Your task to perform on an android device: clear all cookies in the chrome app Image 0: 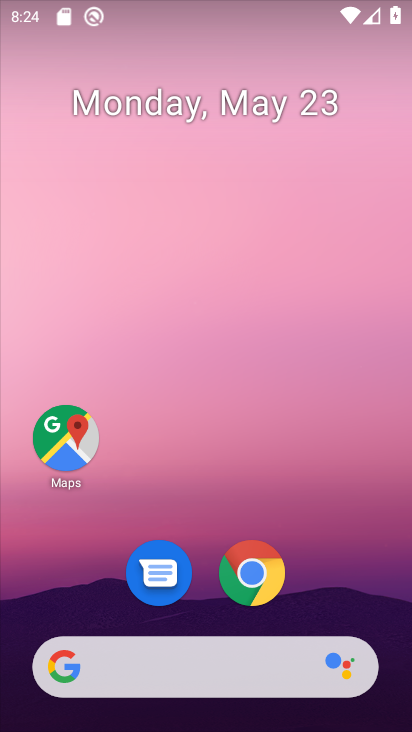
Step 0: click (255, 579)
Your task to perform on an android device: clear all cookies in the chrome app Image 1: 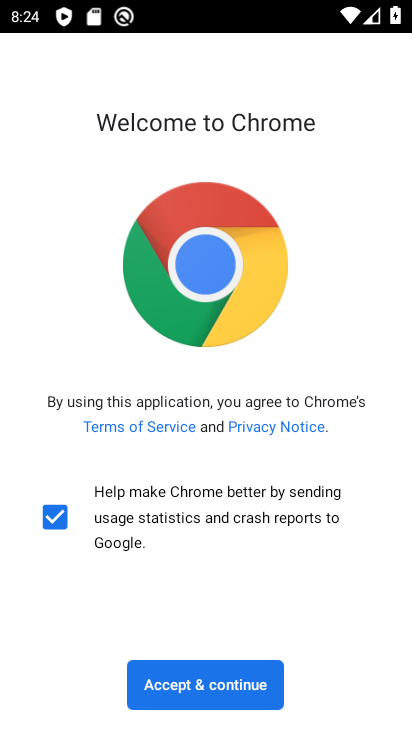
Step 1: click (247, 687)
Your task to perform on an android device: clear all cookies in the chrome app Image 2: 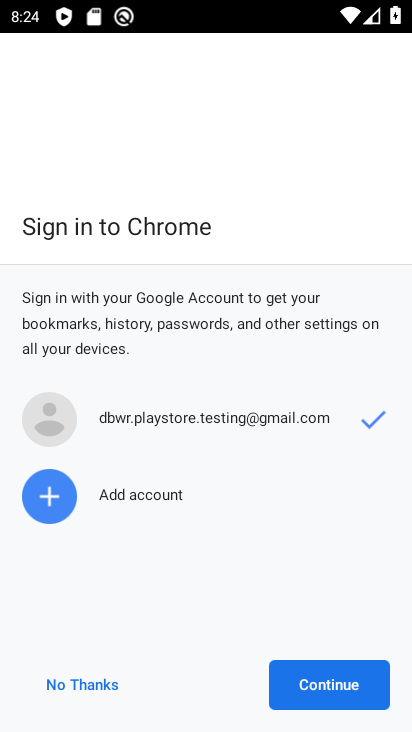
Step 2: click (300, 687)
Your task to perform on an android device: clear all cookies in the chrome app Image 3: 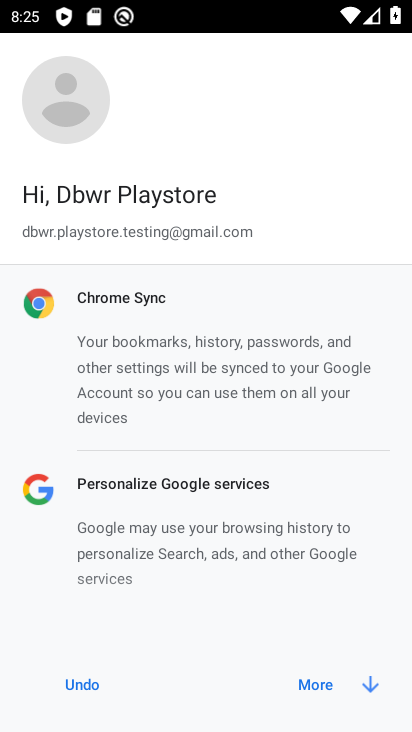
Step 3: click (310, 680)
Your task to perform on an android device: clear all cookies in the chrome app Image 4: 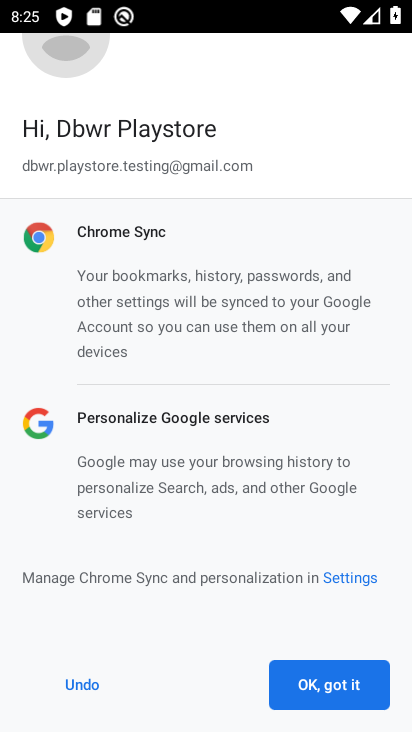
Step 4: click (310, 680)
Your task to perform on an android device: clear all cookies in the chrome app Image 5: 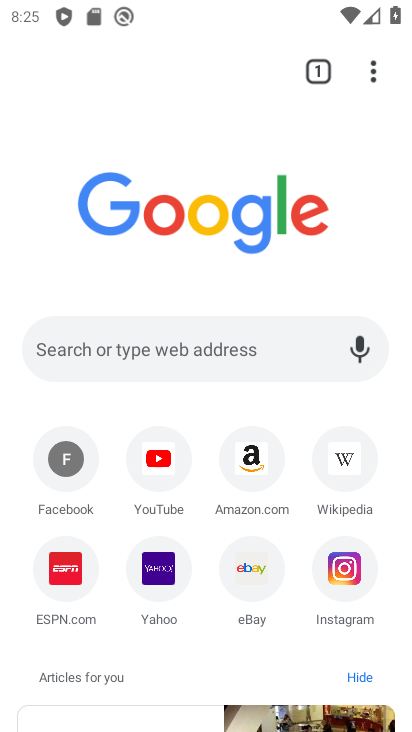
Step 5: click (374, 70)
Your task to perform on an android device: clear all cookies in the chrome app Image 6: 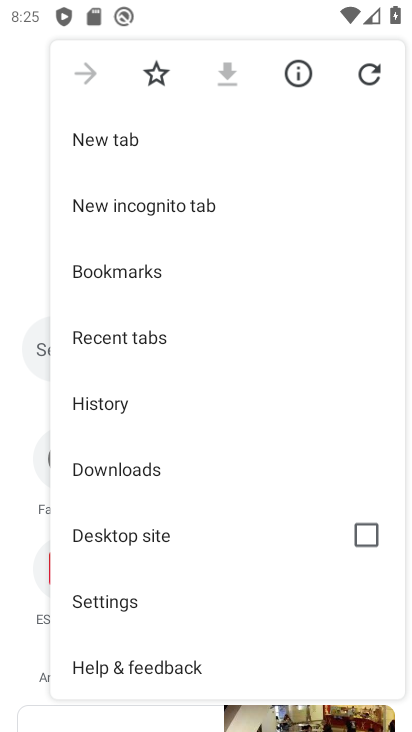
Step 6: click (114, 598)
Your task to perform on an android device: clear all cookies in the chrome app Image 7: 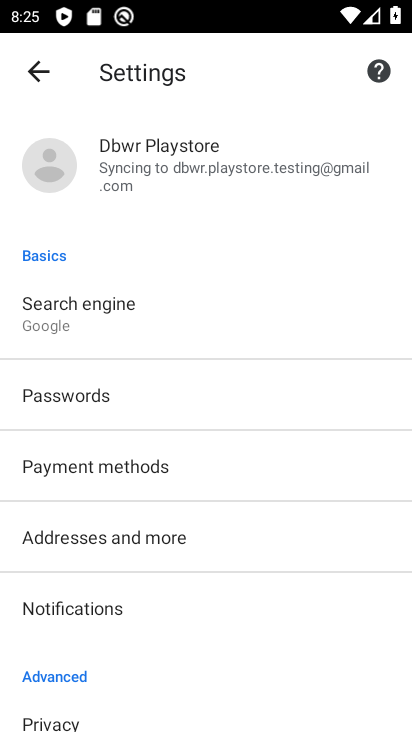
Step 7: click (163, 716)
Your task to perform on an android device: clear all cookies in the chrome app Image 8: 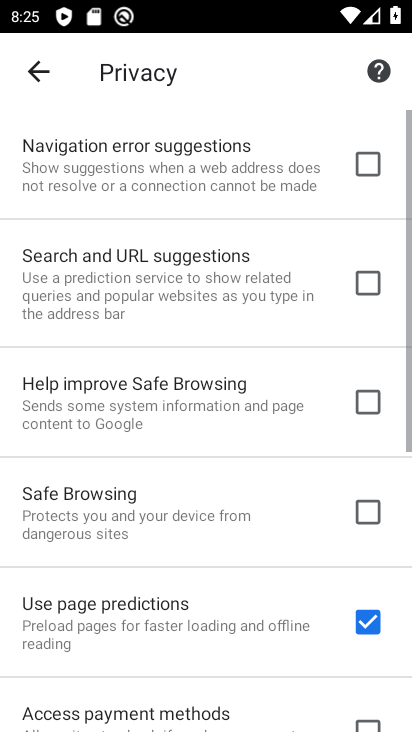
Step 8: drag from (218, 633) to (238, 0)
Your task to perform on an android device: clear all cookies in the chrome app Image 9: 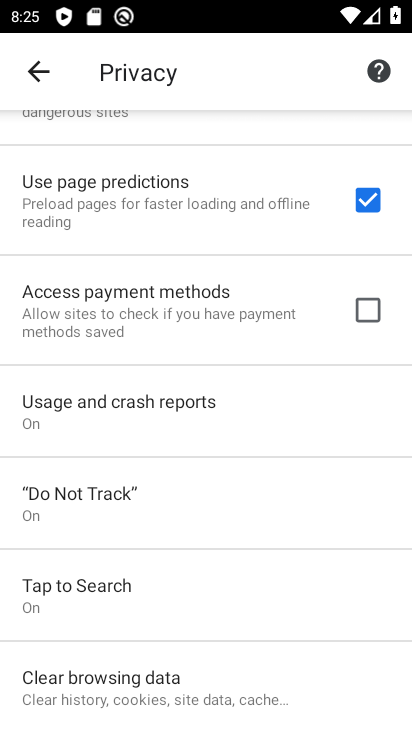
Step 9: click (196, 695)
Your task to perform on an android device: clear all cookies in the chrome app Image 10: 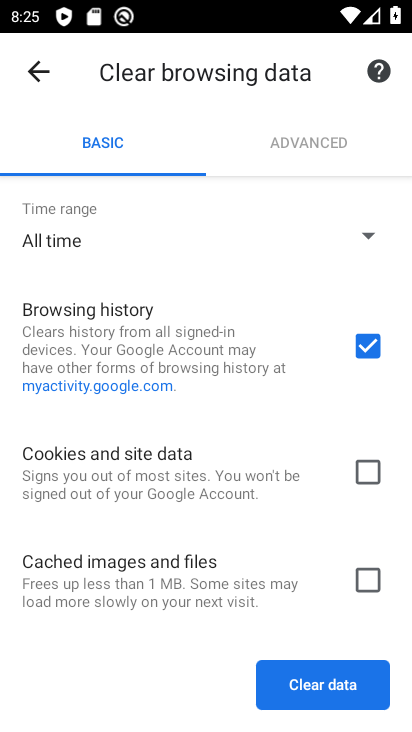
Step 10: click (372, 467)
Your task to perform on an android device: clear all cookies in the chrome app Image 11: 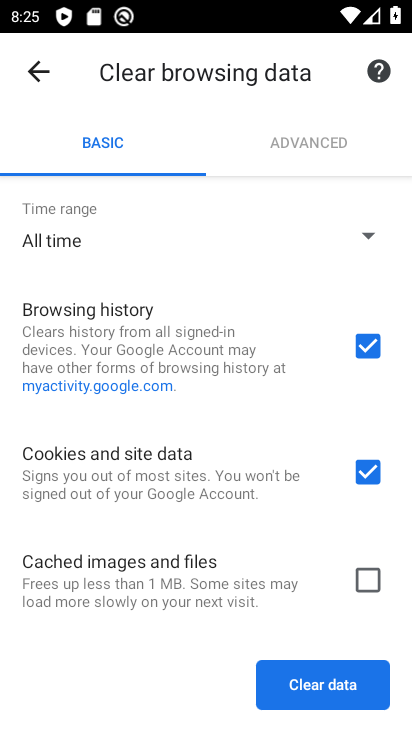
Step 11: click (373, 336)
Your task to perform on an android device: clear all cookies in the chrome app Image 12: 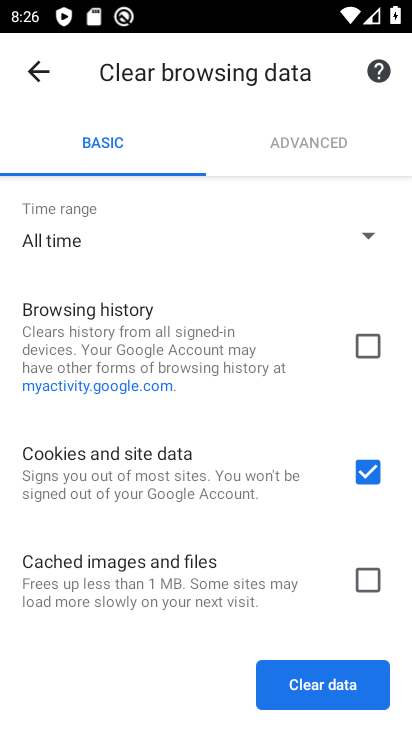
Step 12: click (338, 683)
Your task to perform on an android device: clear all cookies in the chrome app Image 13: 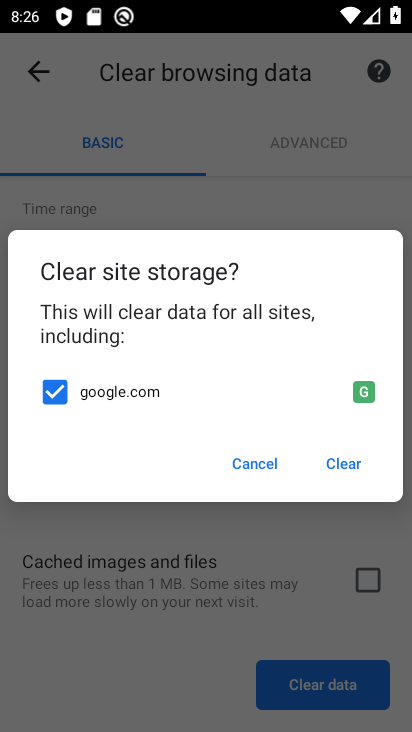
Step 13: click (351, 458)
Your task to perform on an android device: clear all cookies in the chrome app Image 14: 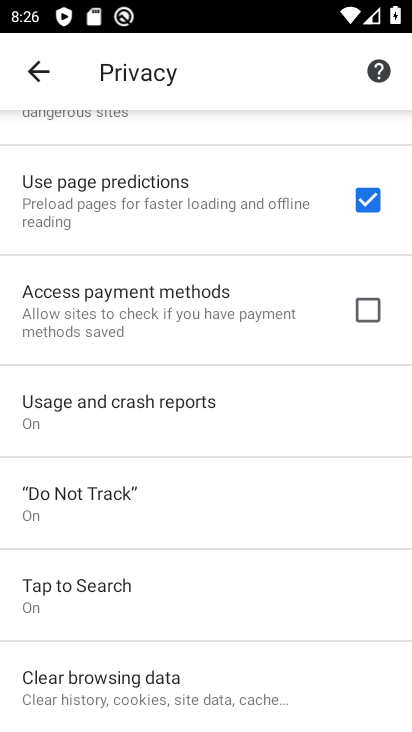
Step 14: task complete